Your task to perform on an android device: Search for pizza restaurants on Maps Image 0: 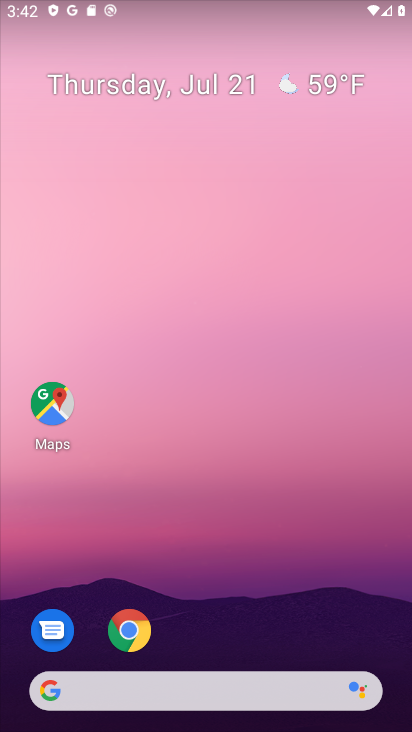
Step 0: click (363, 127)
Your task to perform on an android device: Search for pizza restaurants on Maps Image 1: 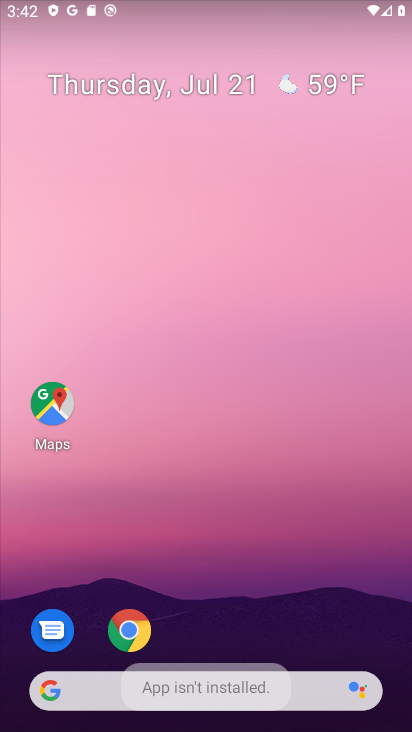
Step 1: drag from (179, 285) to (171, 218)
Your task to perform on an android device: Search for pizza restaurants on Maps Image 2: 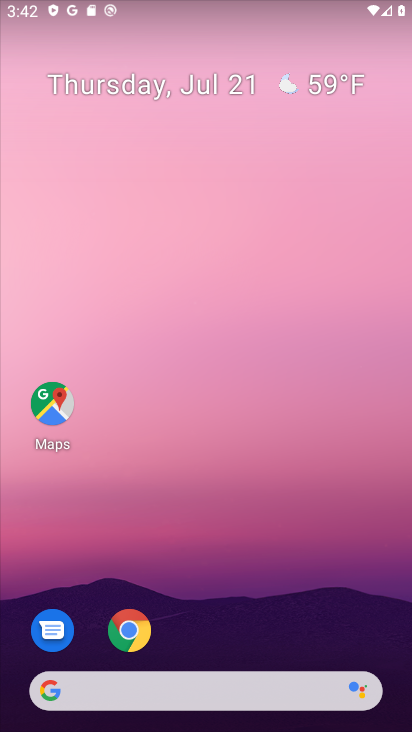
Step 2: drag from (179, 571) to (144, 75)
Your task to perform on an android device: Search for pizza restaurants on Maps Image 3: 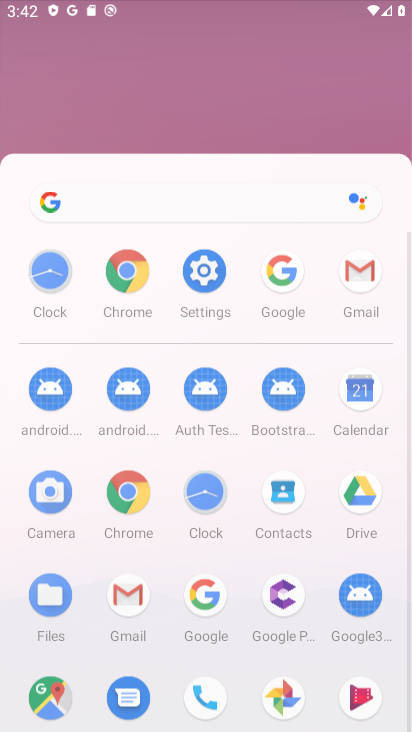
Step 3: drag from (142, 440) to (121, 138)
Your task to perform on an android device: Search for pizza restaurants on Maps Image 4: 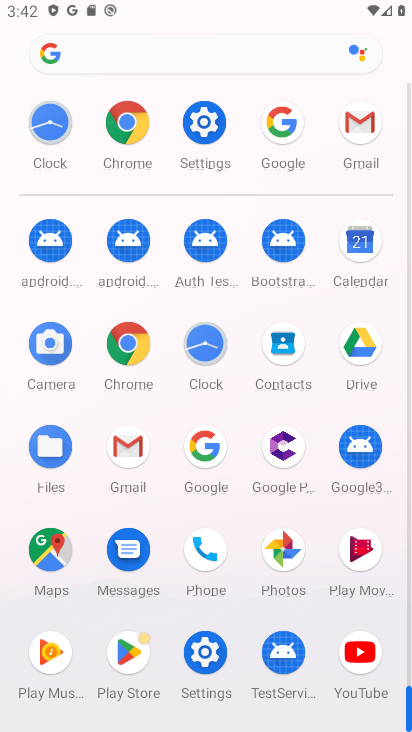
Step 4: drag from (129, 319) to (120, 75)
Your task to perform on an android device: Search for pizza restaurants on Maps Image 5: 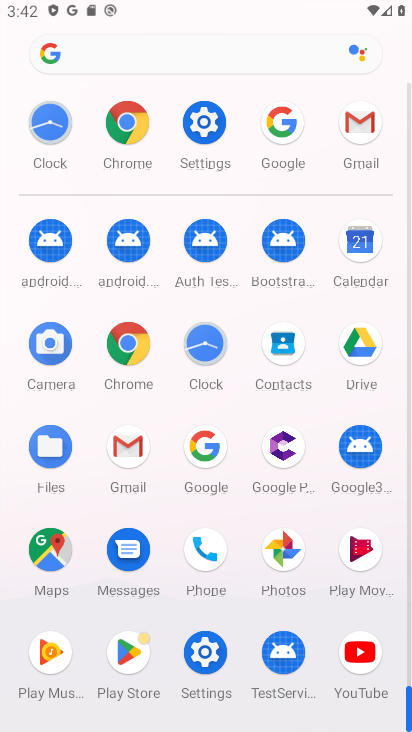
Step 5: click (46, 553)
Your task to perform on an android device: Search for pizza restaurants on Maps Image 6: 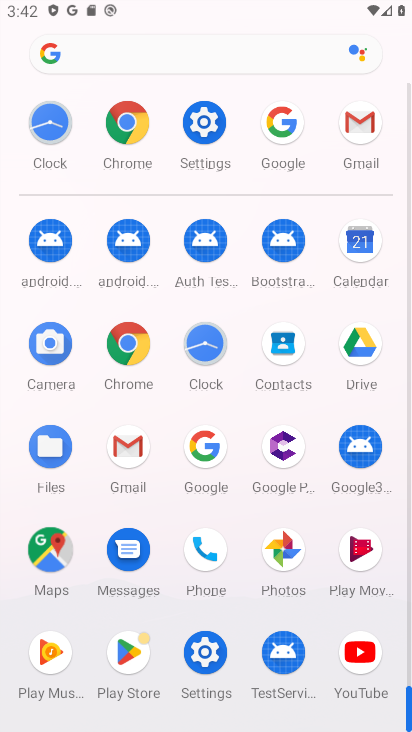
Step 6: click (46, 553)
Your task to perform on an android device: Search for pizza restaurants on Maps Image 7: 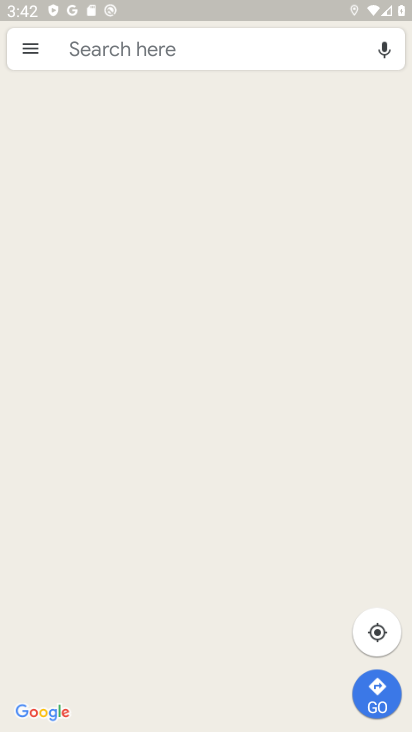
Step 7: click (101, 49)
Your task to perform on an android device: Search for pizza restaurants on Maps Image 8: 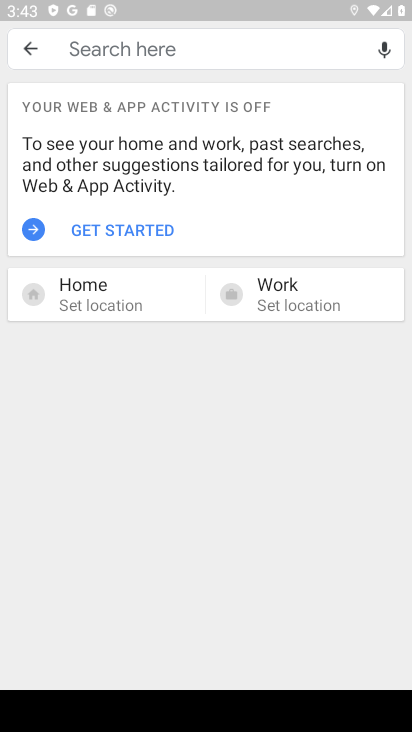
Step 8: type "pizza restaurants"
Your task to perform on an android device: Search for pizza restaurants on Maps Image 9: 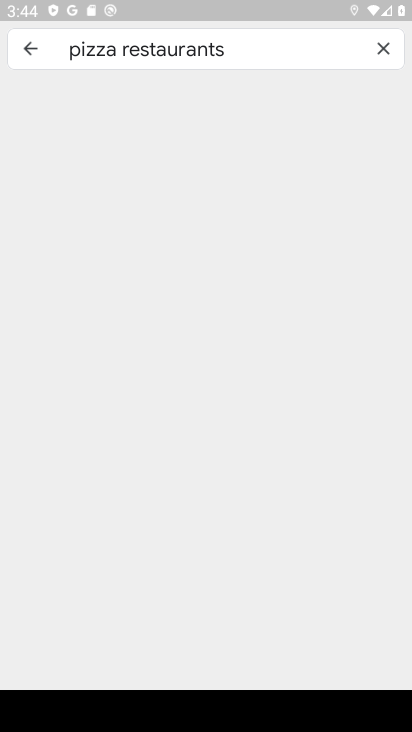
Step 9: click (286, 35)
Your task to perform on an android device: Search for pizza restaurants on Maps Image 10: 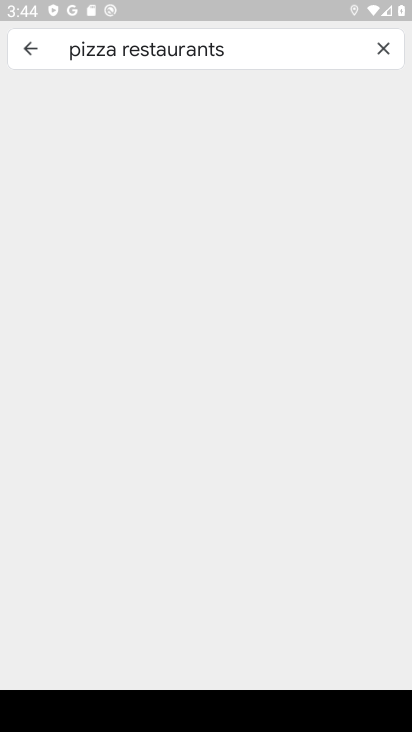
Step 10: click (279, 43)
Your task to perform on an android device: Search for pizza restaurants on Maps Image 11: 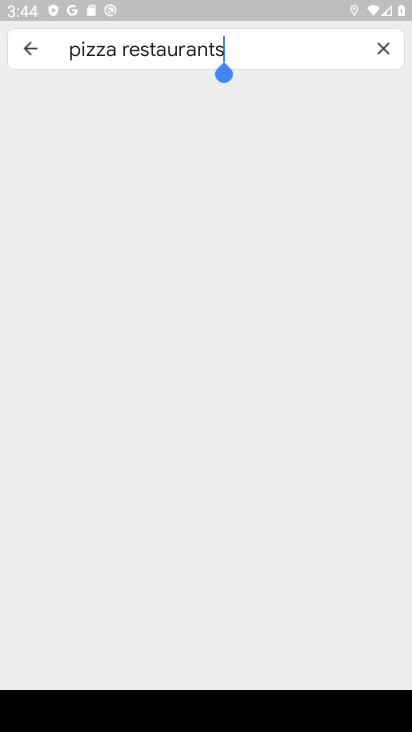
Step 11: task complete